Your task to perform on an android device: check android version Image 0: 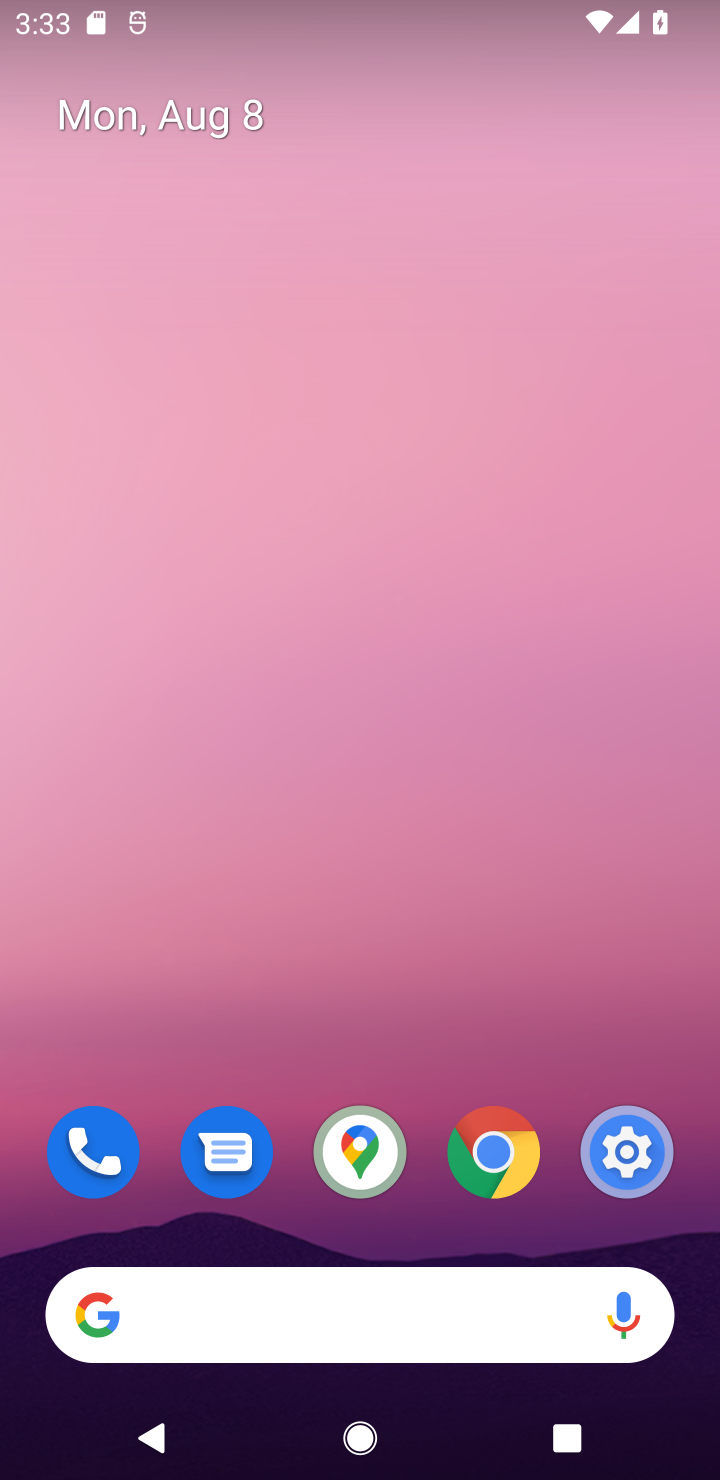
Step 0: click (630, 1172)
Your task to perform on an android device: check android version Image 1: 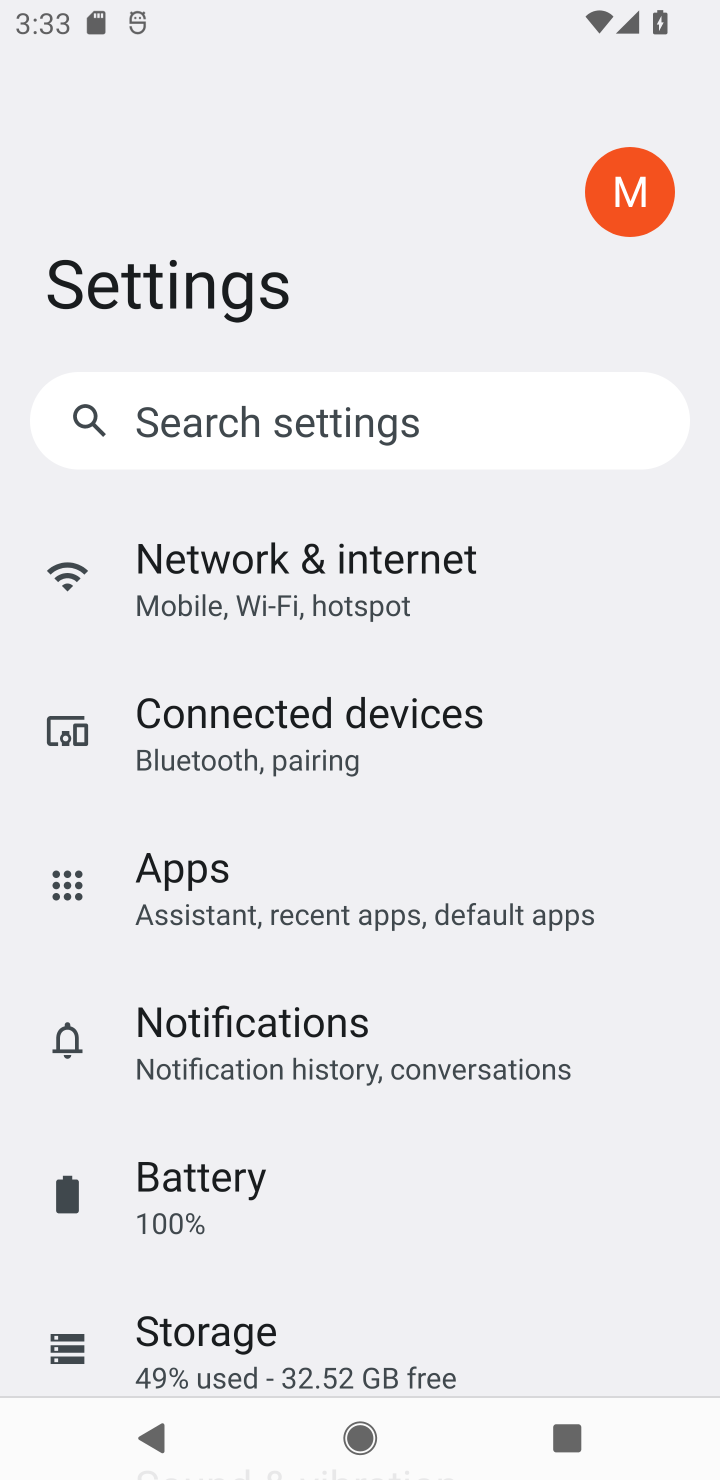
Step 1: drag from (229, 1252) to (455, 242)
Your task to perform on an android device: check android version Image 2: 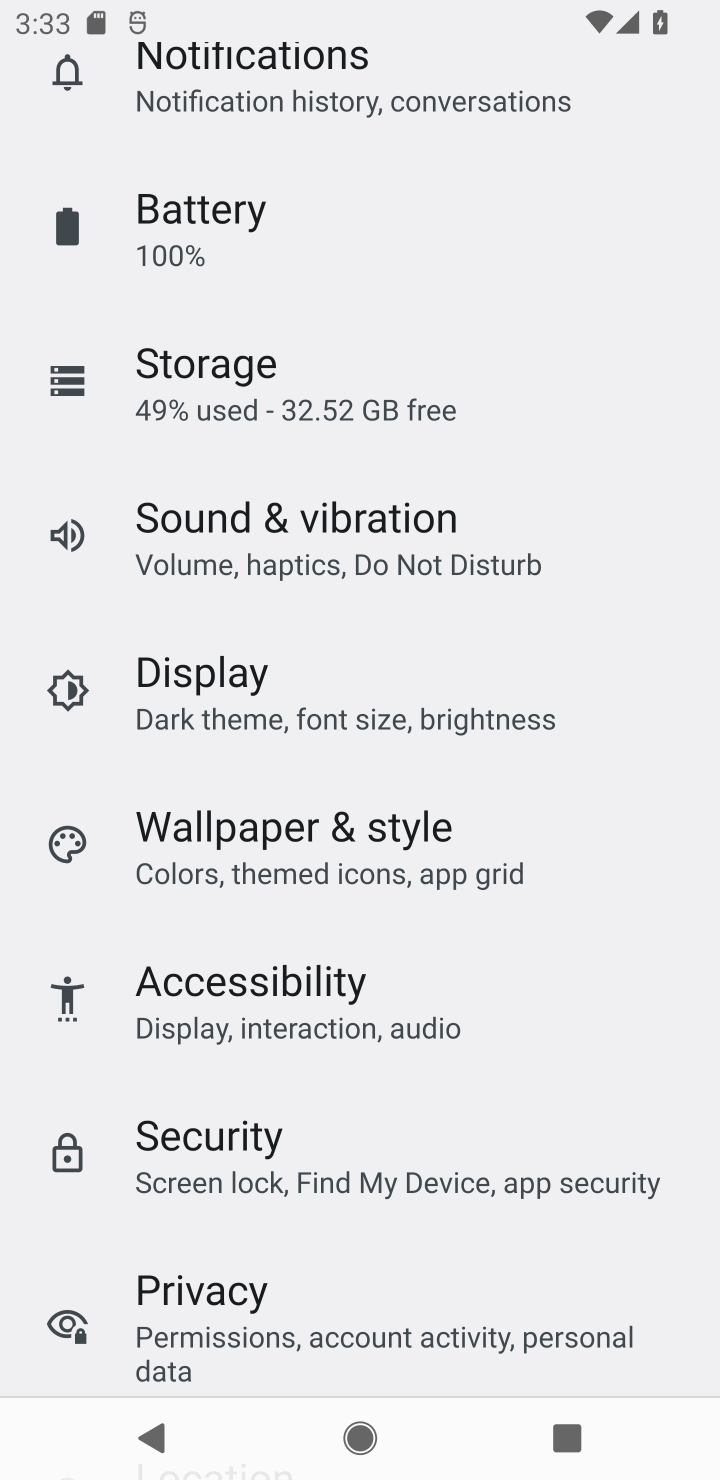
Step 2: drag from (333, 1346) to (475, 143)
Your task to perform on an android device: check android version Image 3: 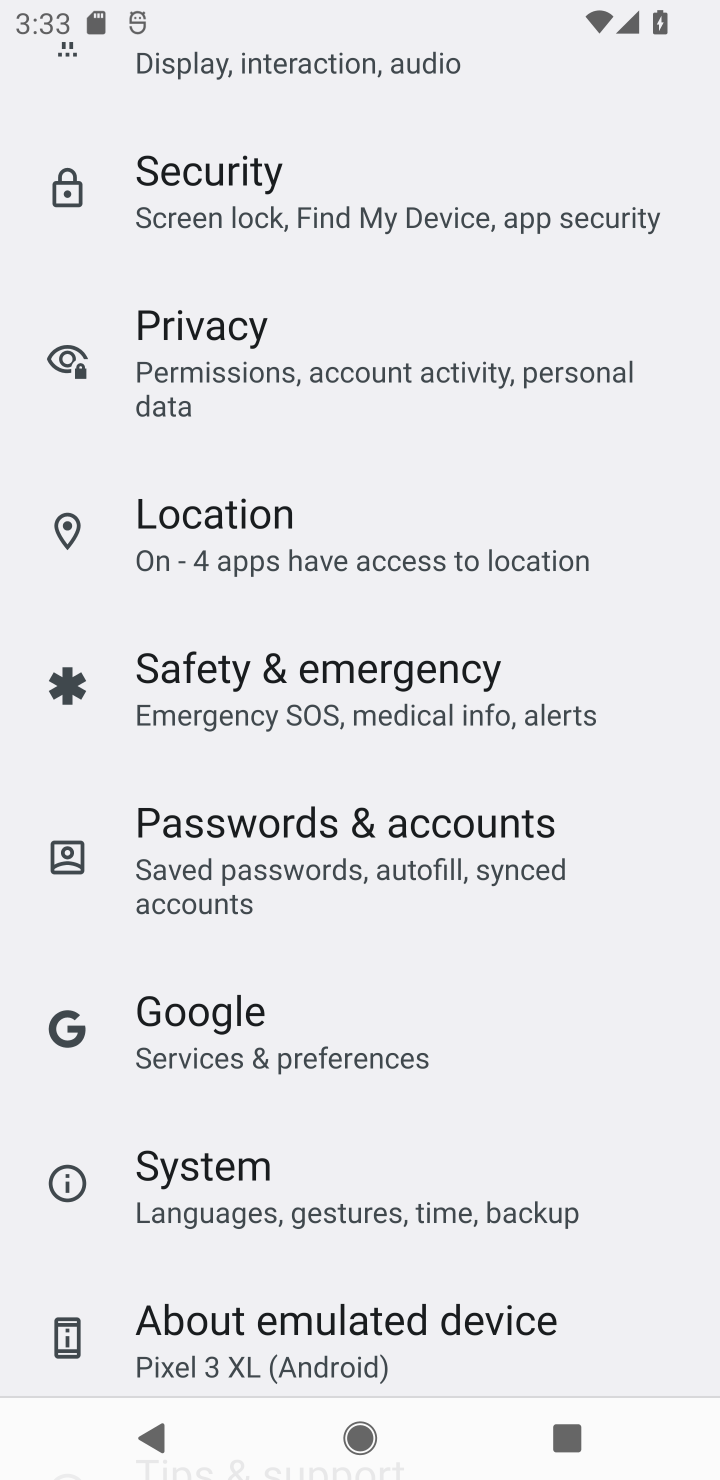
Step 3: drag from (256, 1310) to (520, 125)
Your task to perform on an android device: check android version Image 4: 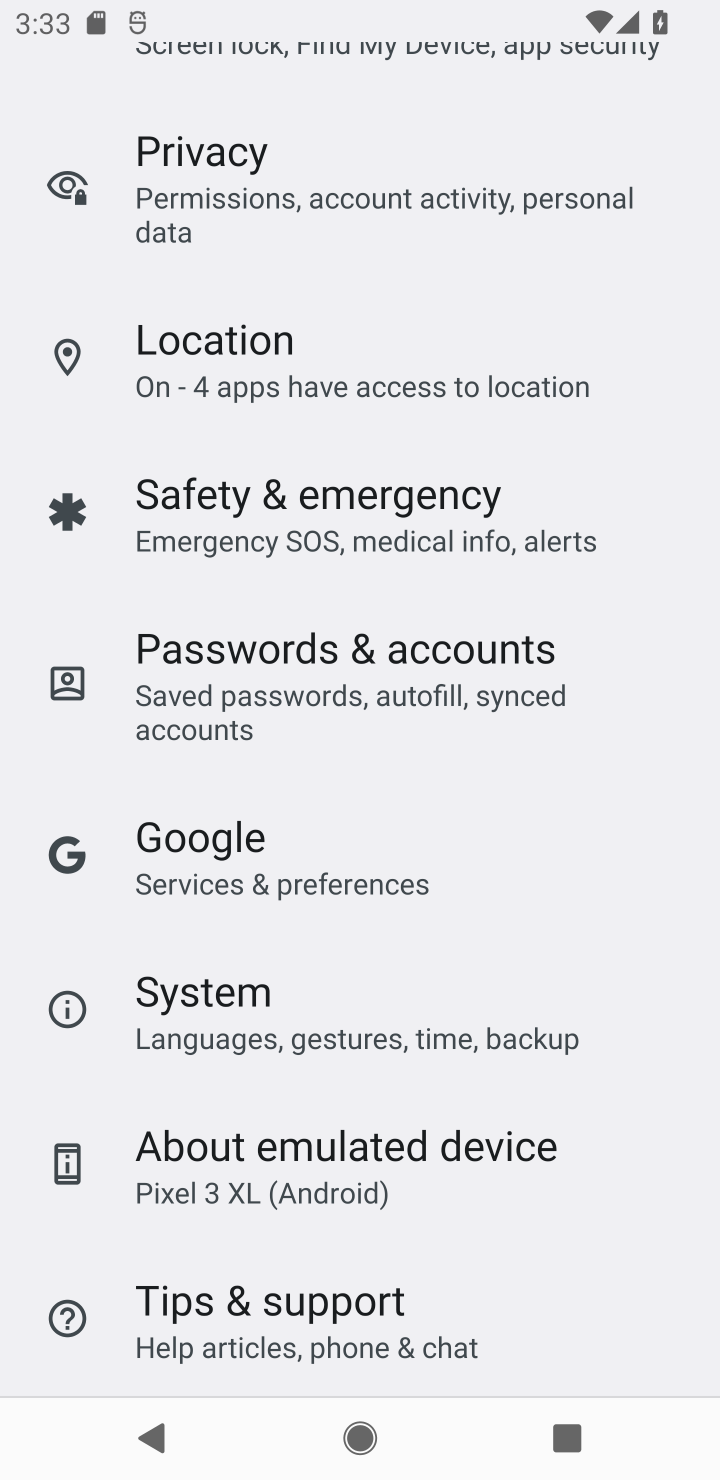
Step 4: click (293, 1175)
Your task to perform on an android device: check android version Image 5: 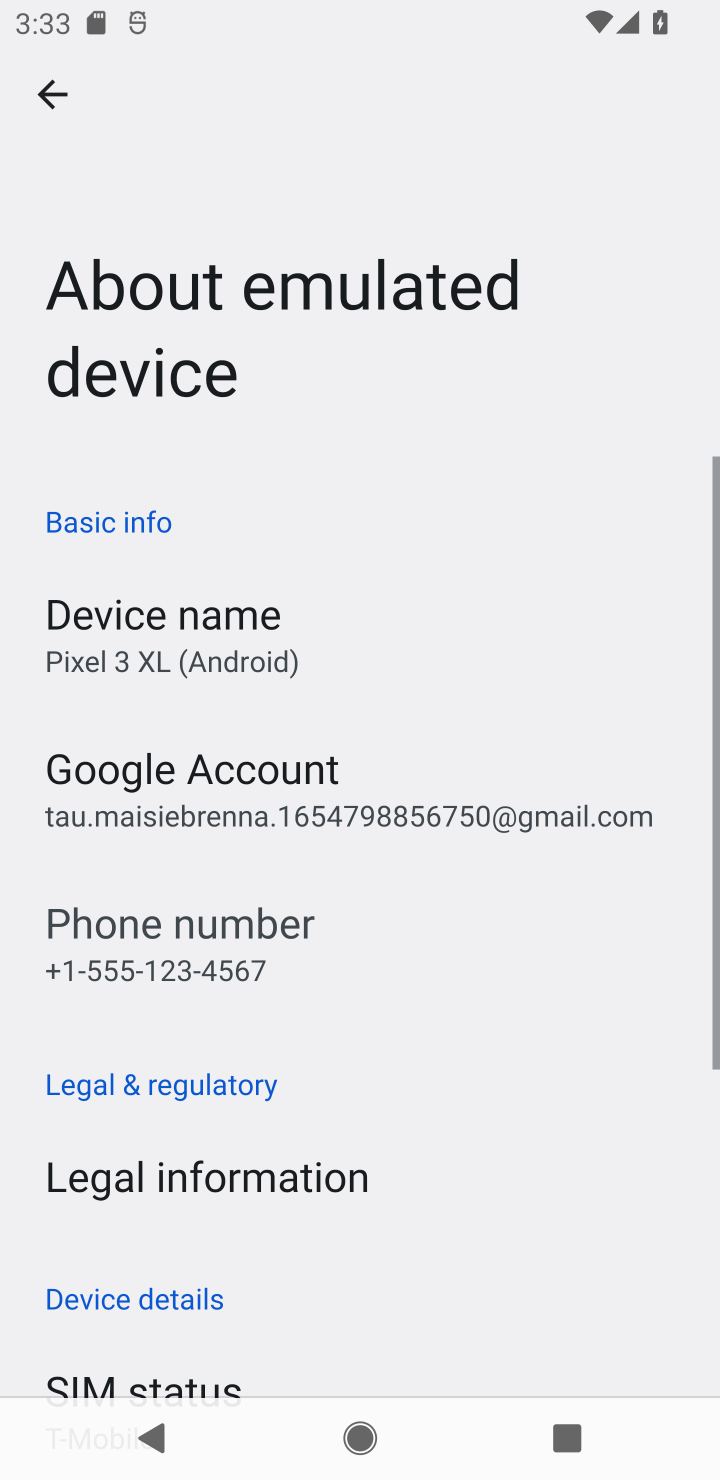
Step 5: drag from (248, 1189) to (450, 358)
Your task to perform on an android device: check android version Image 6: 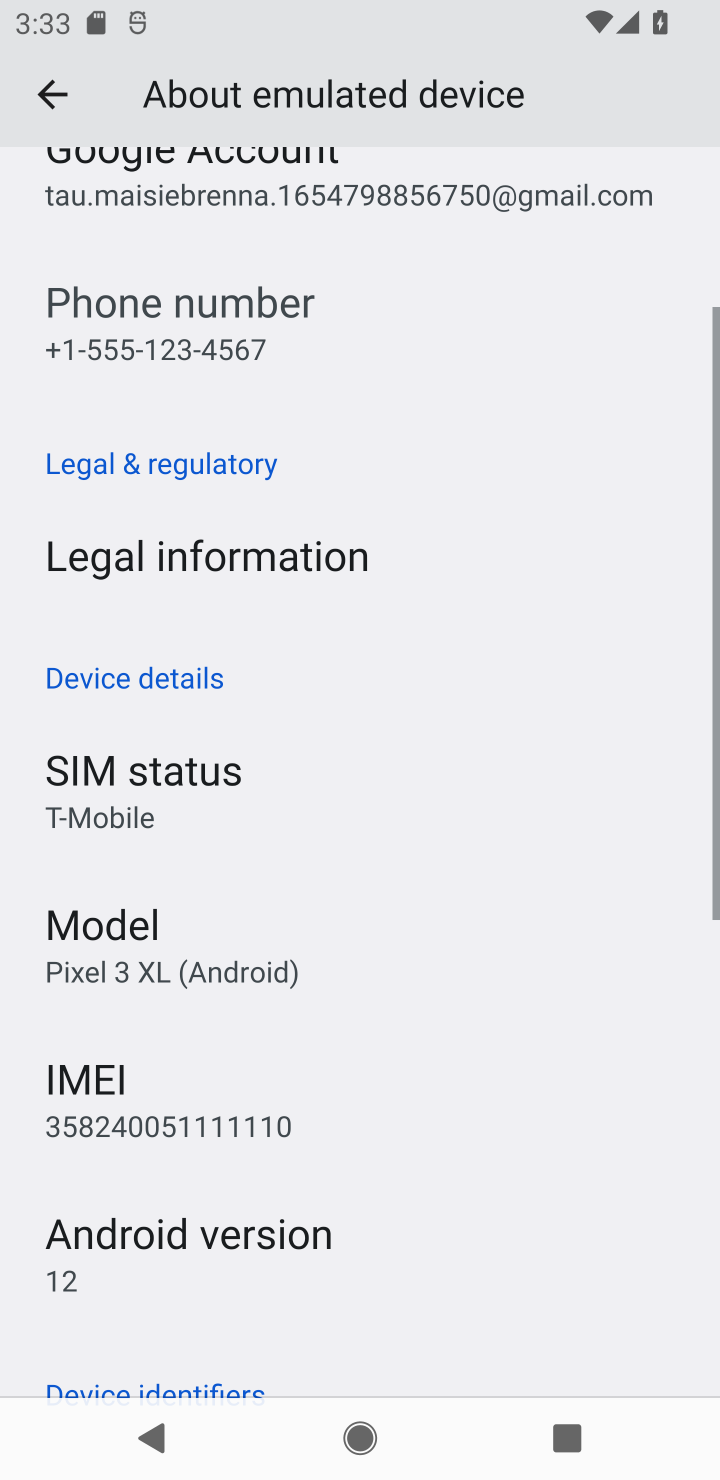
Step 6: click (195, 1239)
Your task to perform on an android device: check android version Image 7: 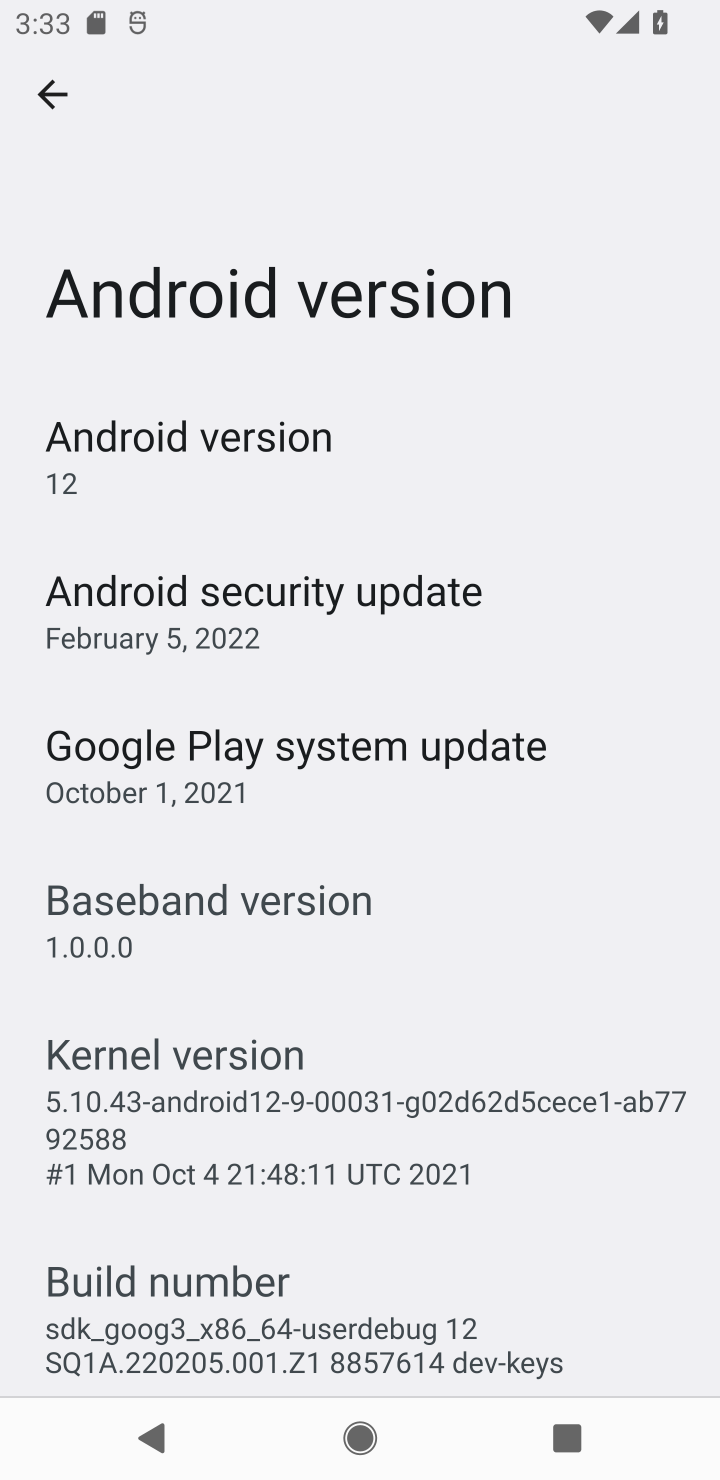
Step 7: click (276, 472)
Your task to perform on an android device: check android version Image 8: 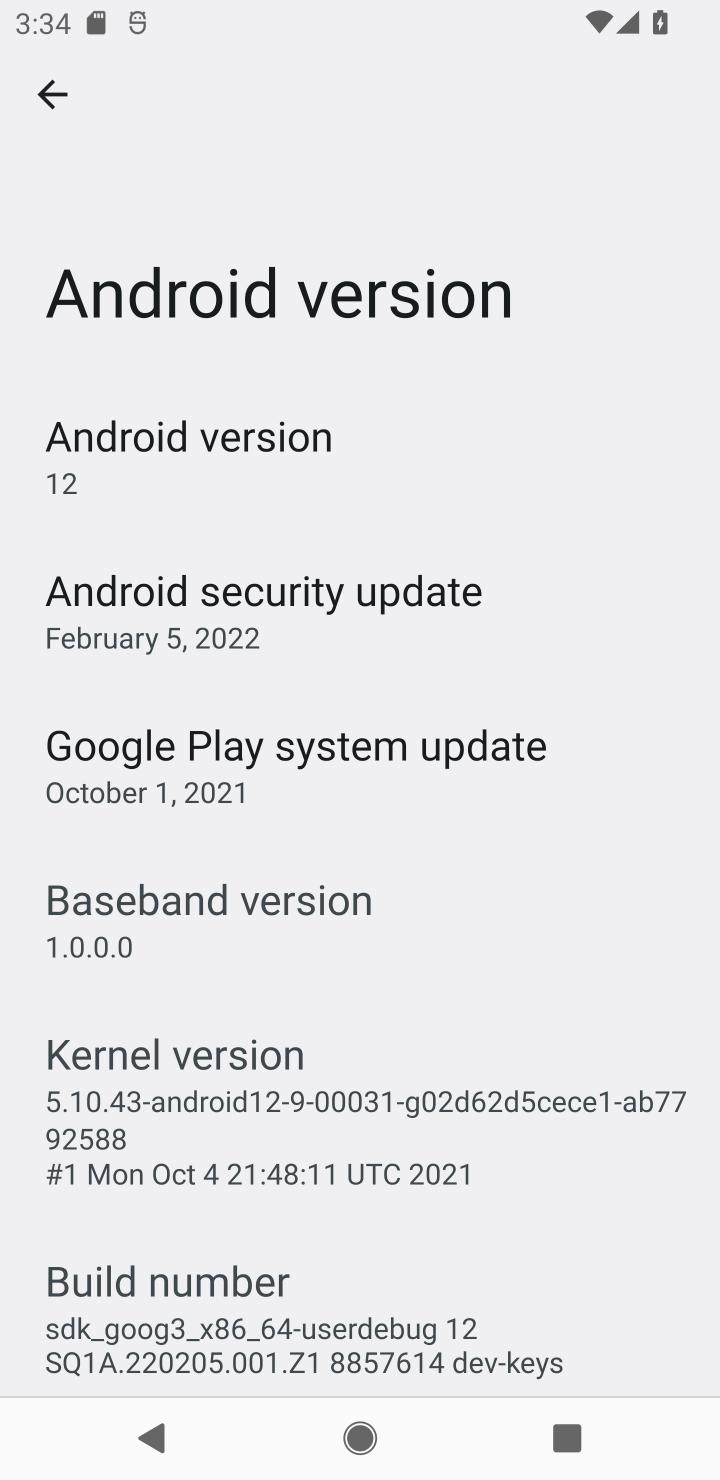
Step 8: task complete